Your task to perform on an android device: open app "Google Home" (install if not already installed) Image 0: 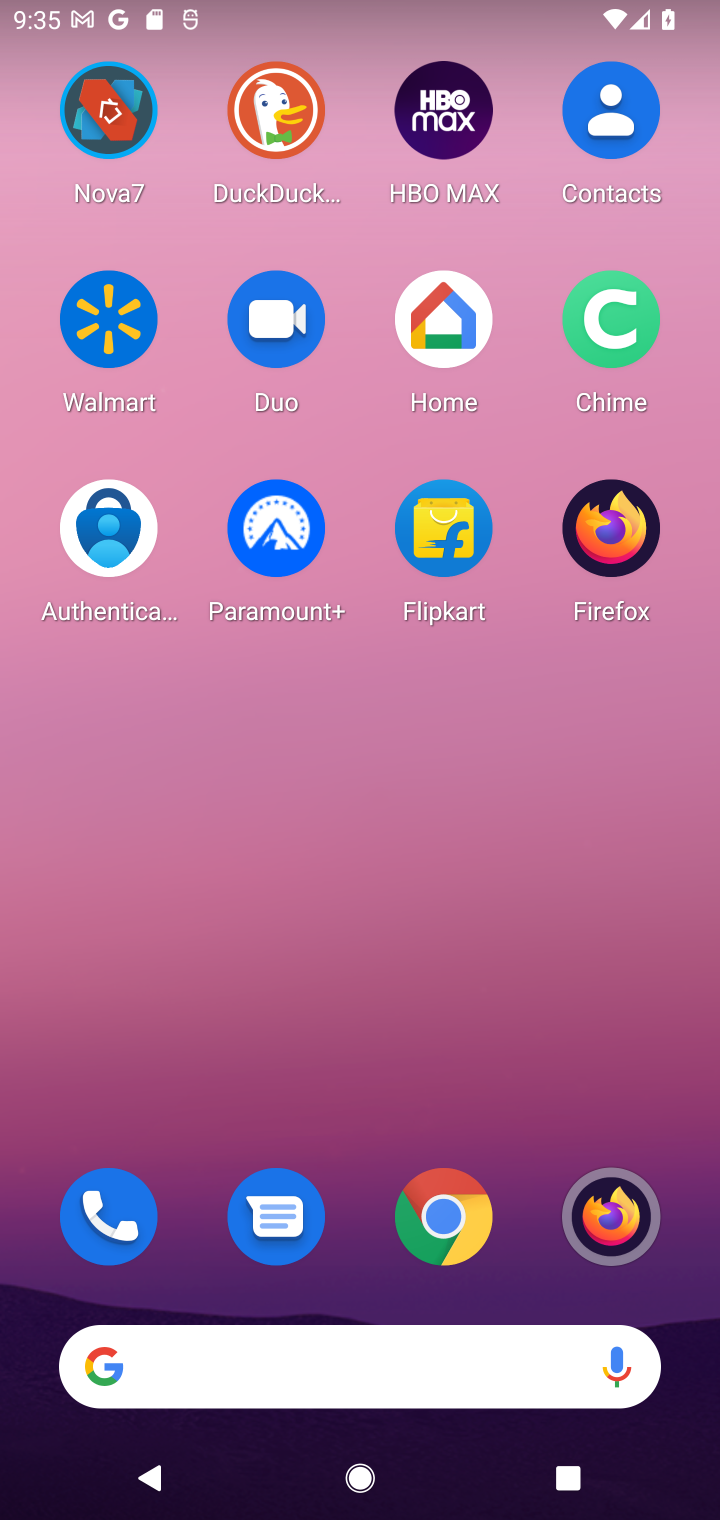
Step 0: press home button
Your task to perform on an android device: open app "Google Home" (install if not already installed) Image 1: 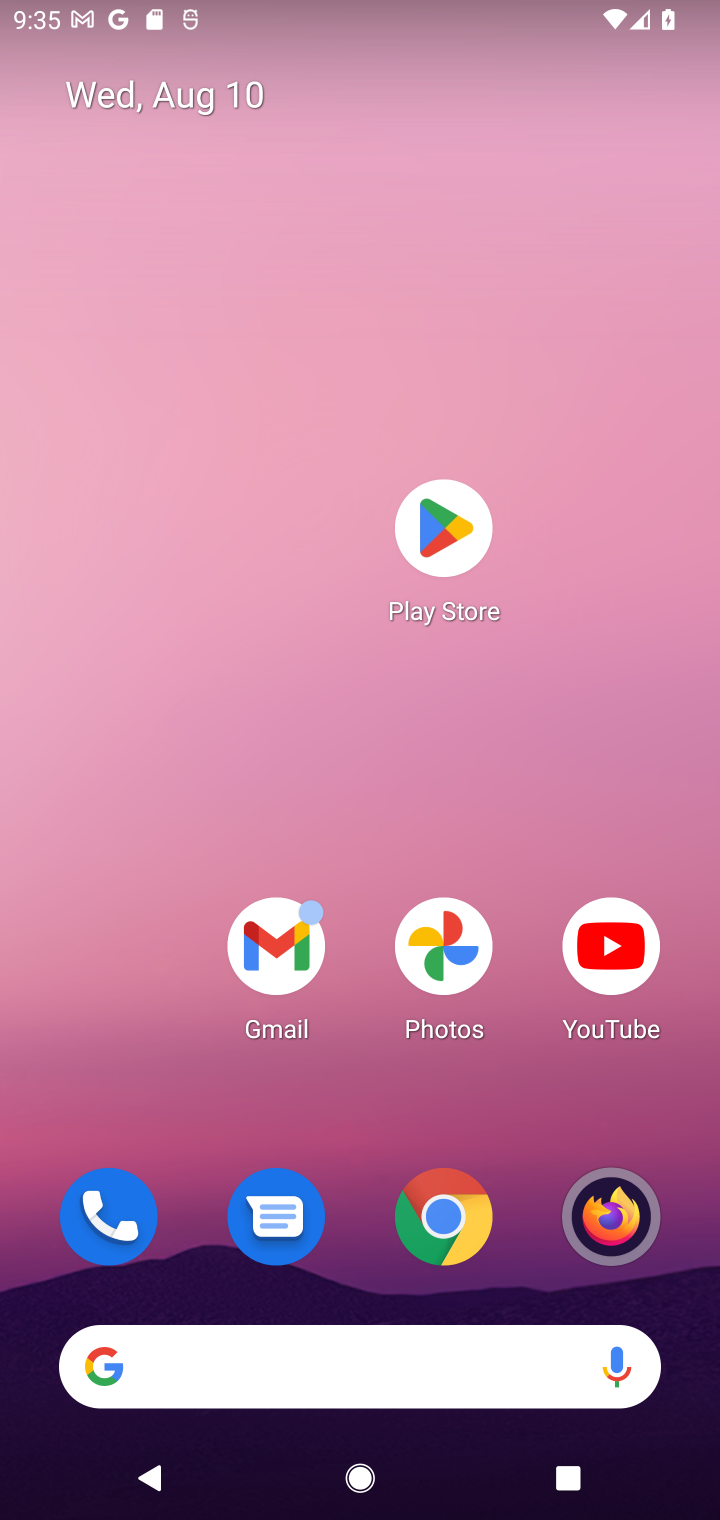
Step 1: click (436, 538)
Your task to perform on an android device: open app "Google Home" (install if not already installed) Image 2: 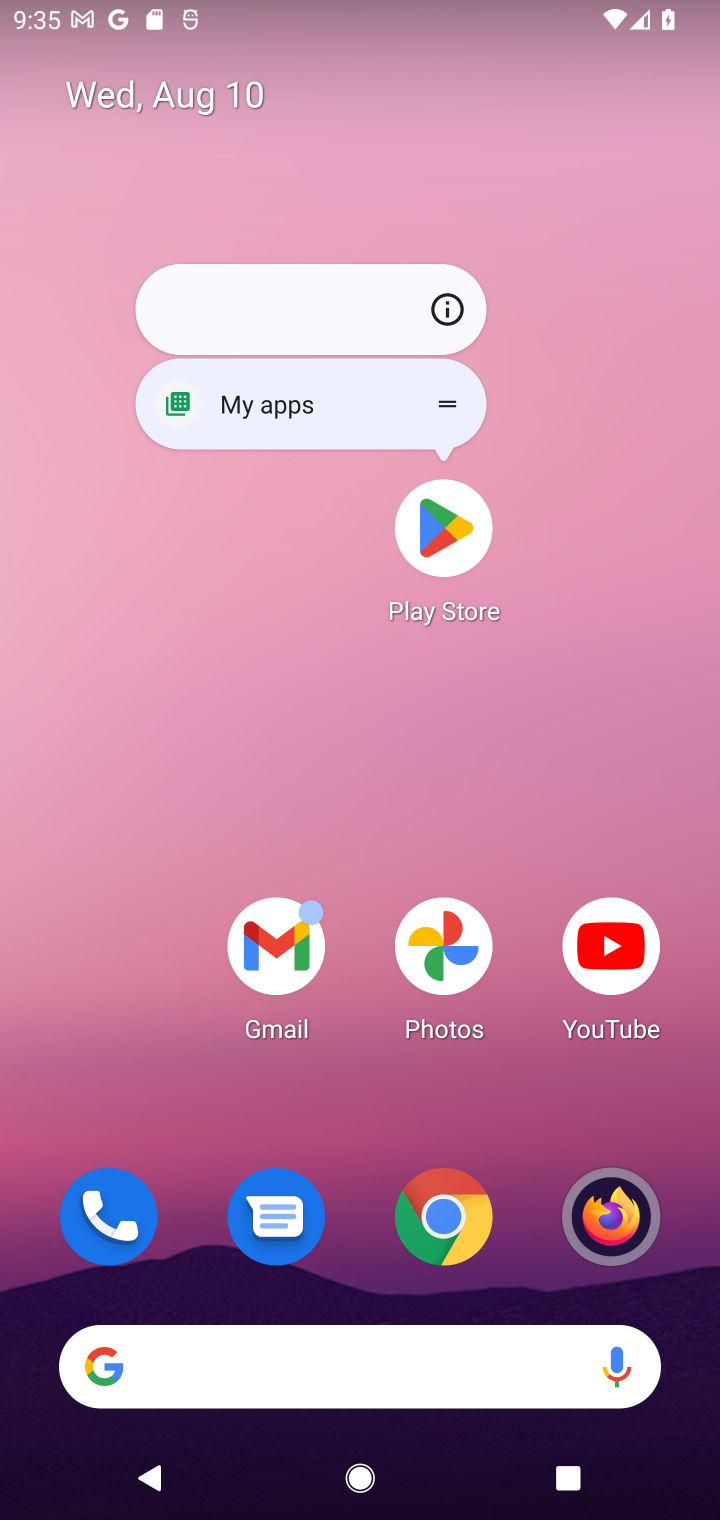
Step 2: click (436, 534)
Your task to perform on an android device: open app "Google Home" (install if not already installed) Image 3: 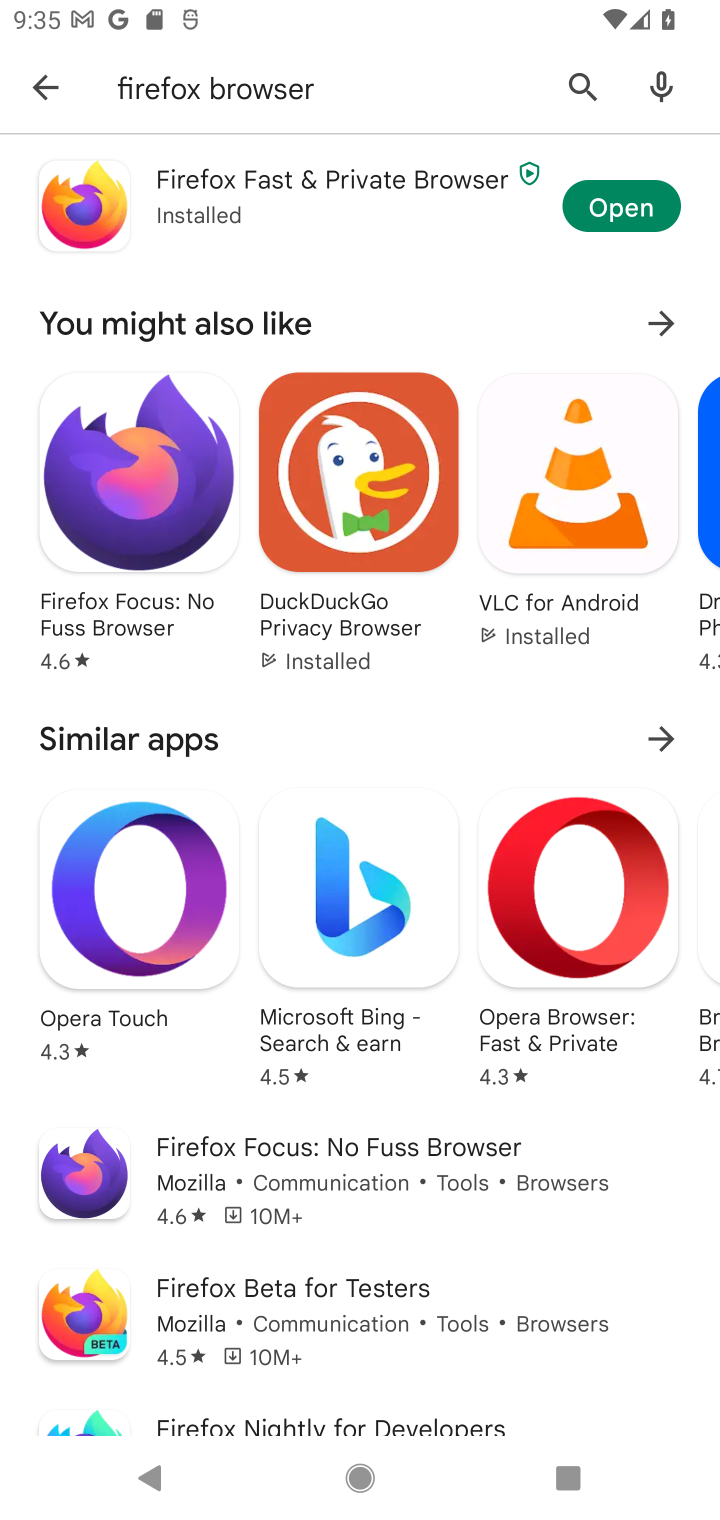
Step 3: click (576, 81)
Your task to perform on an android device: open app "Google Home" (install if not already installed) Image 4: 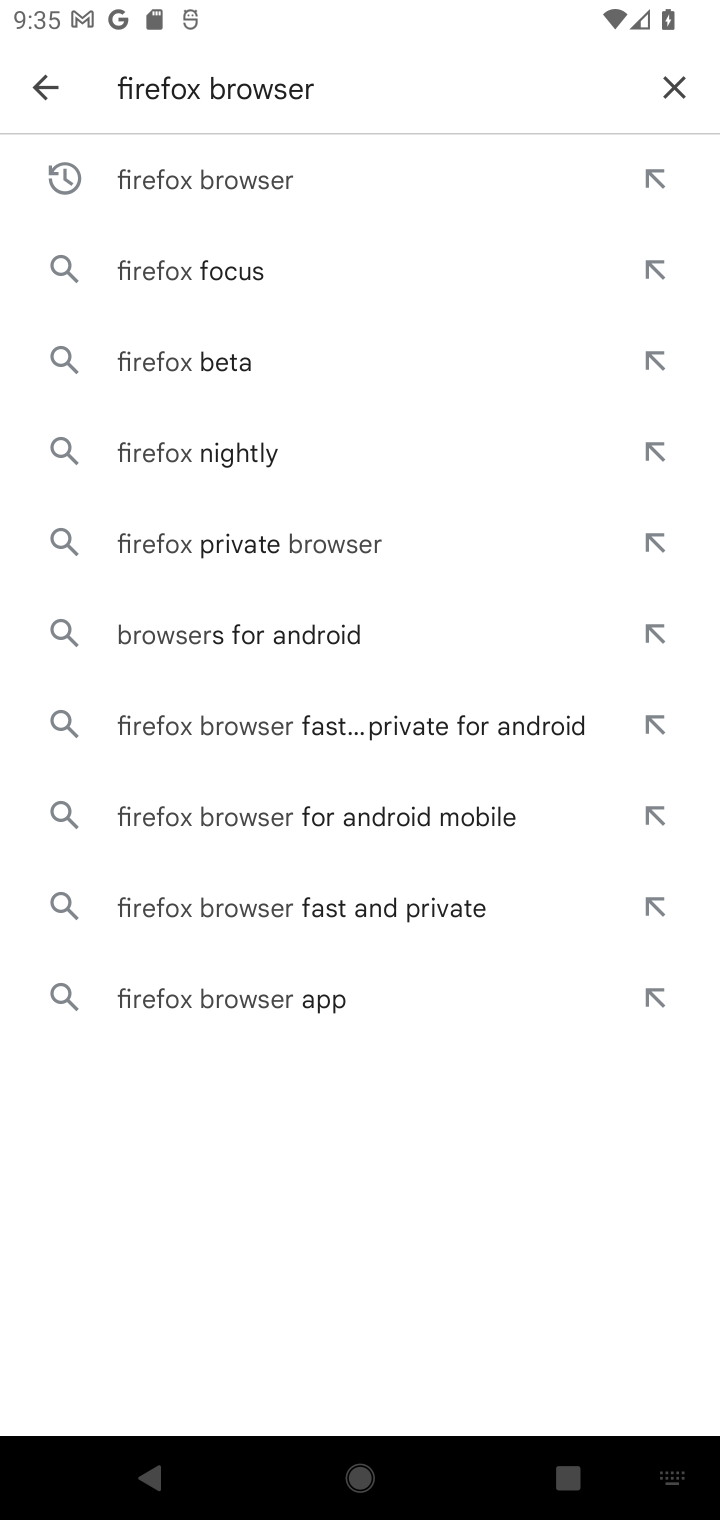
Step 4: click (668, 81)
Your task to perform on an android device: open app "Google Home" (install if not already installed) Image 5: 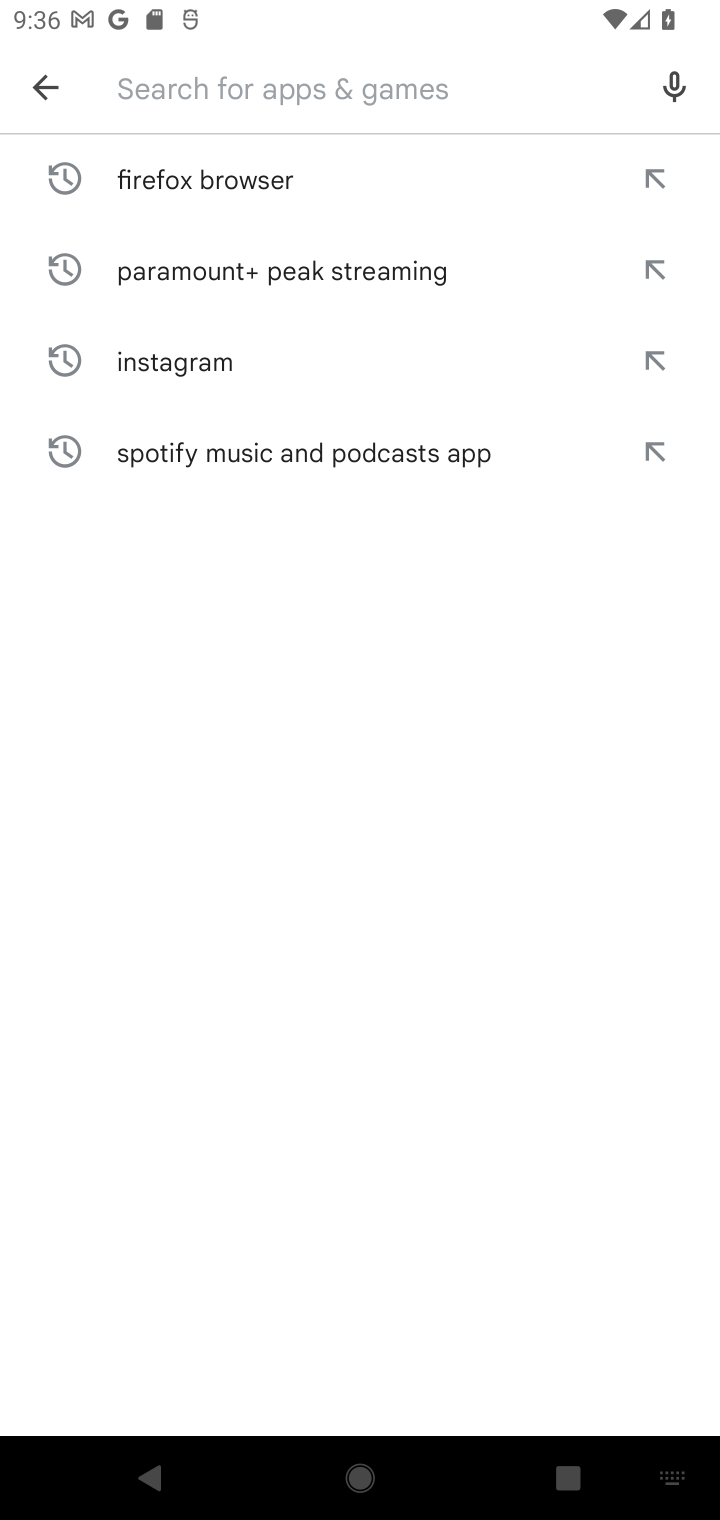
Step 5: type "Google Home"
Your task to perform on an android device: open app "Google Home" (install if not already installed) Image 6: 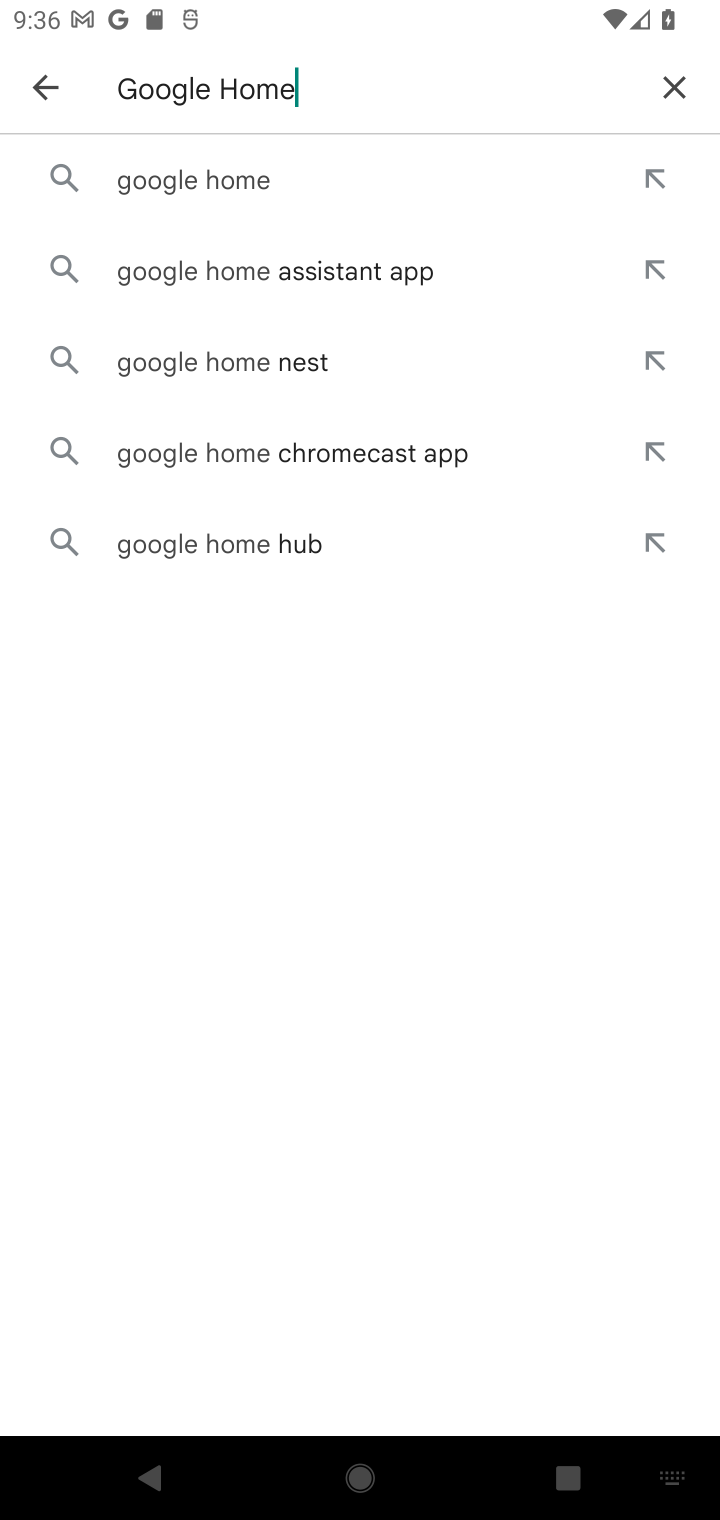
Step 6: click (220, 179)
Your task to perform on an android device: open app "Google Home" (install if not already installed) Image 7: 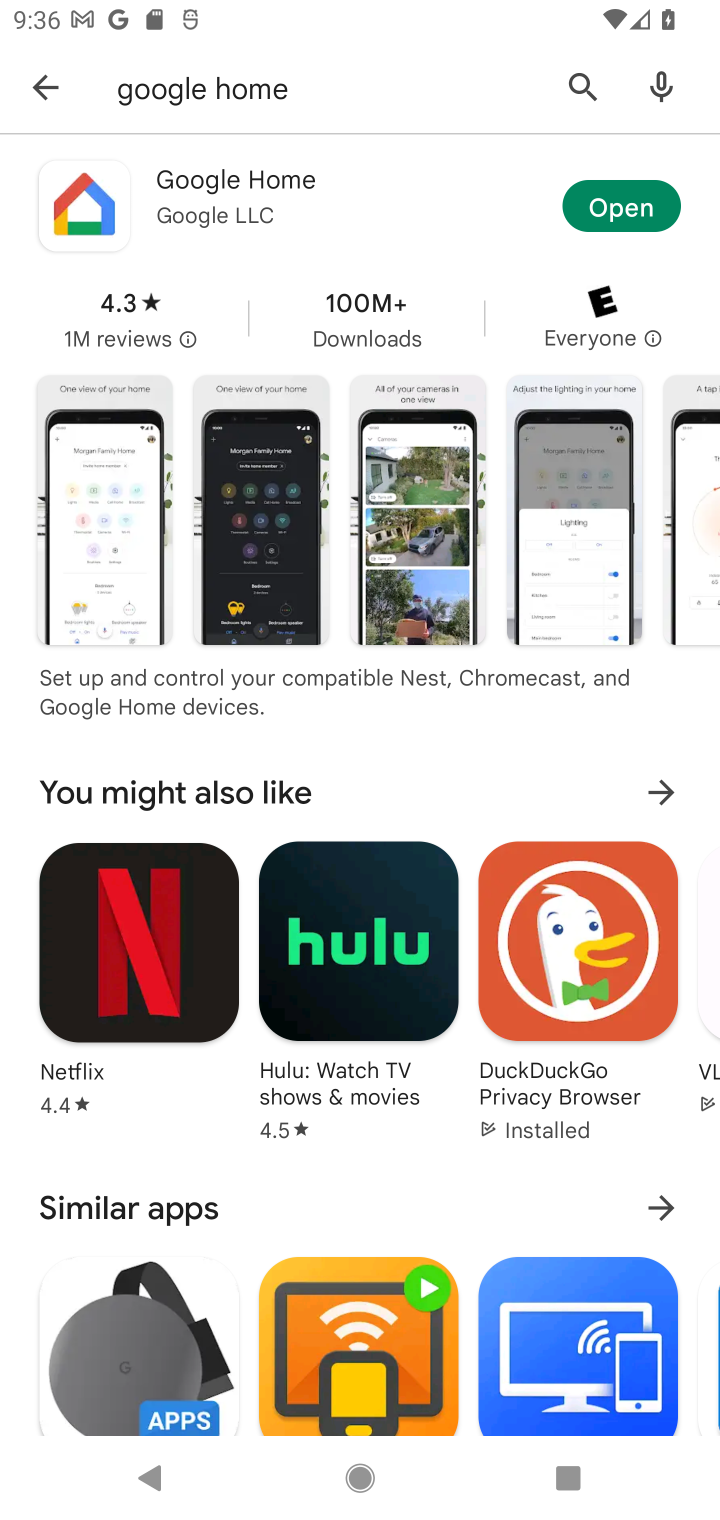
Step 7: click (621, 196)
Your task to perform on an android device: open app "Google Home" (install if not already installed) Image 8: 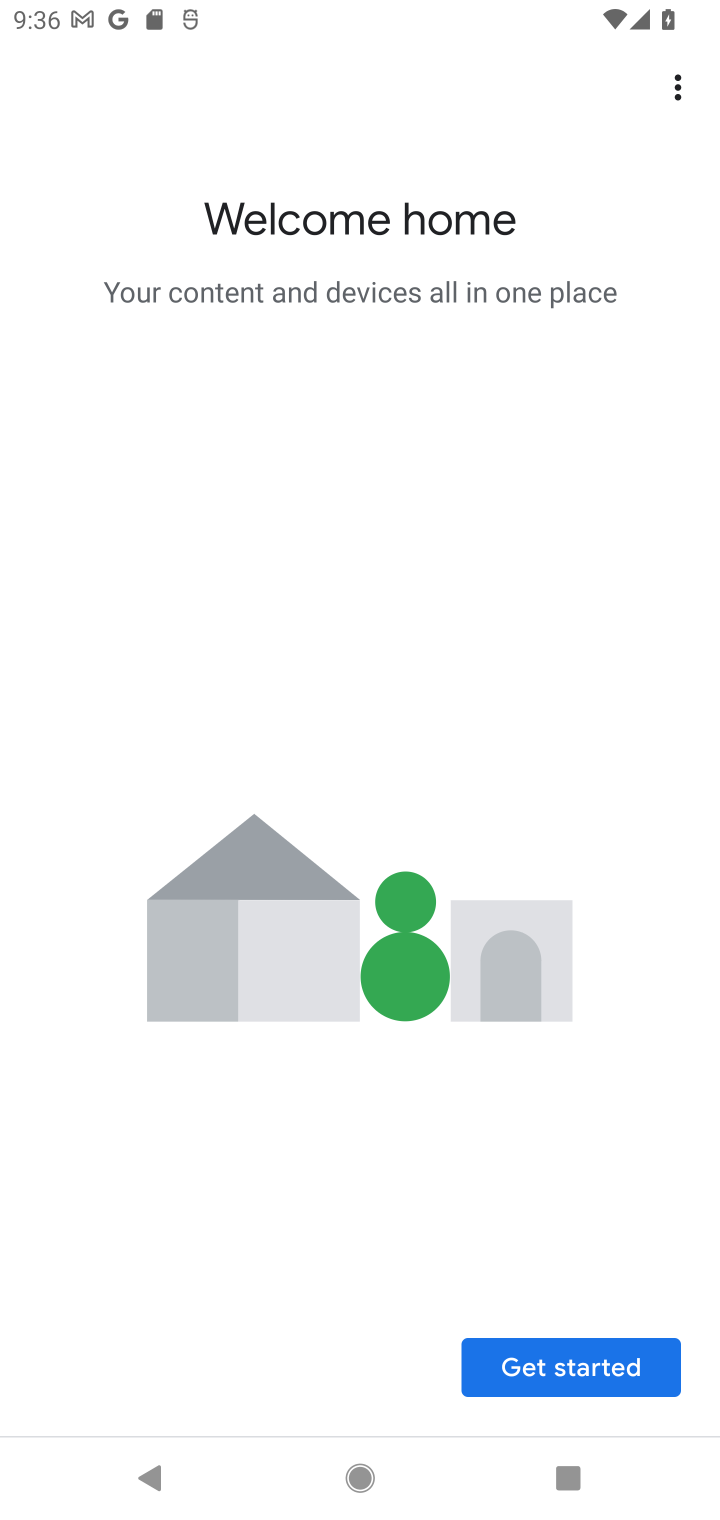
Step 8: task complete